Your task to perform on an android device: What's the weather? Image 0: 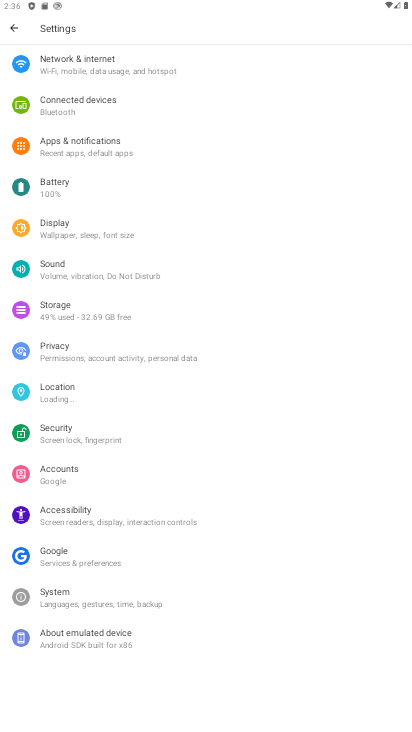
Step 0: press home button
Your task to perform on an android device: What's the weather? Image 1: 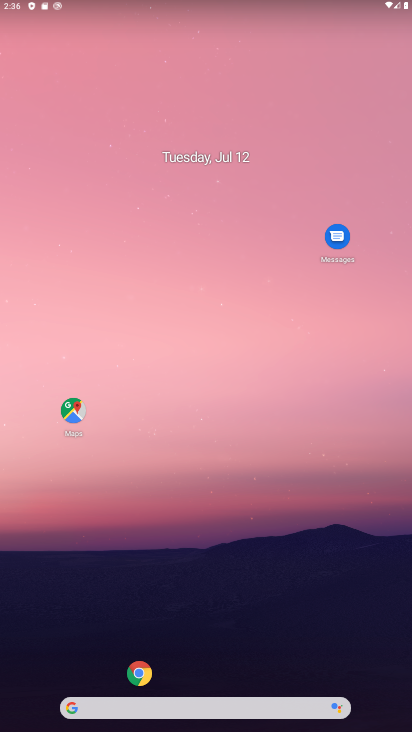
Step 1: click (86, 703)
Your task to perform on an android device: What's the weather? Image 2: 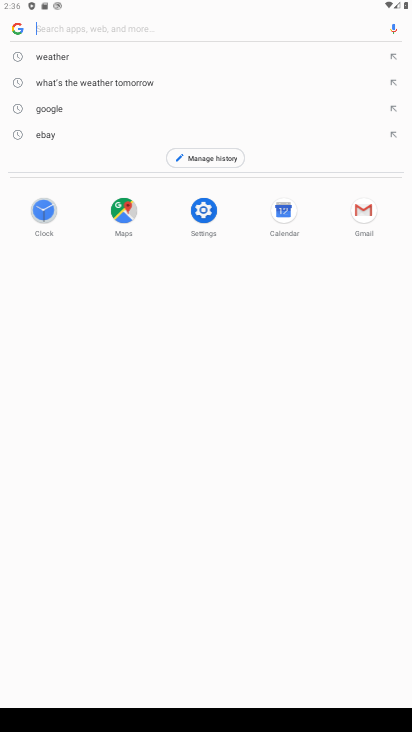
Step 2: type "What's the weather?"
Your task to perform on an android device: What's the weather? Image 3: 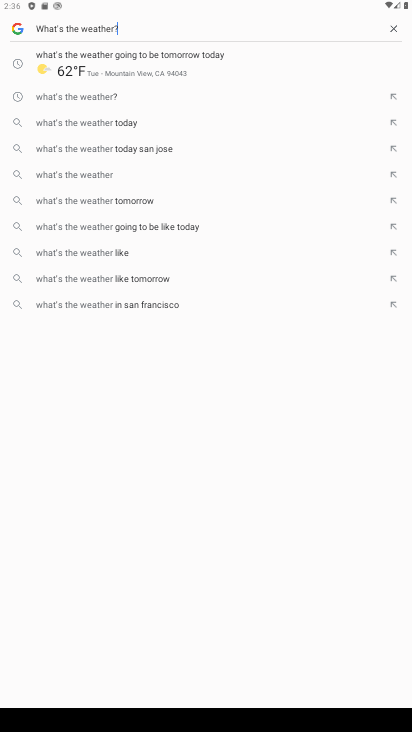
Step 3: type ""
Your task to perform on an android device: What's the weather? Image 4: 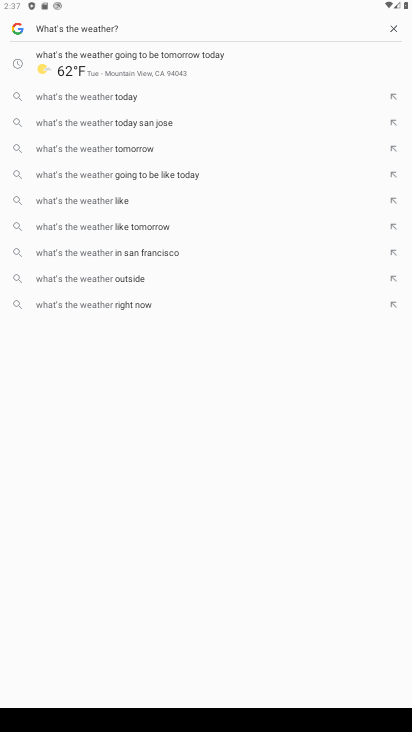
Step 4: task complete